Your task to perform on an android device: Open location settings Image 0: 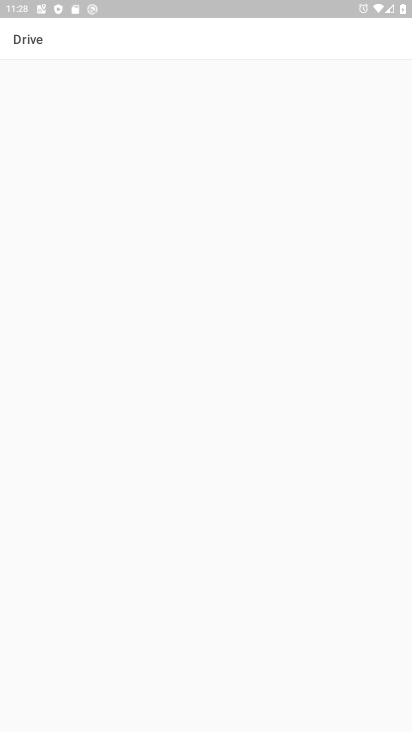
Step 0: press home button
Your task to perform on an android device: Open location settings Image 1: 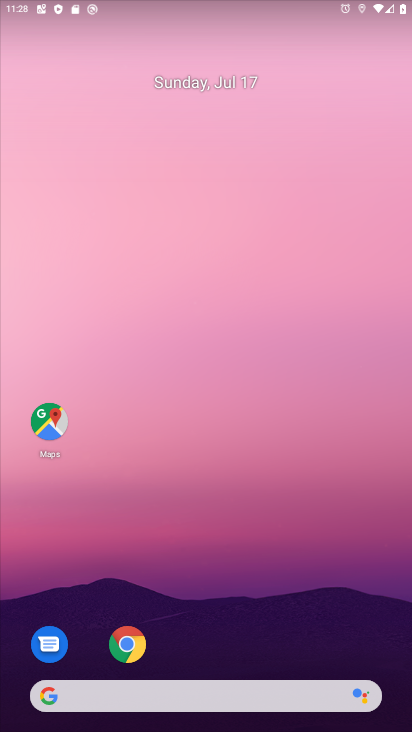
Step 1: drag from (257, 608) to (259, 159)
Your task to perform on an android device: Open location settings Image 2: 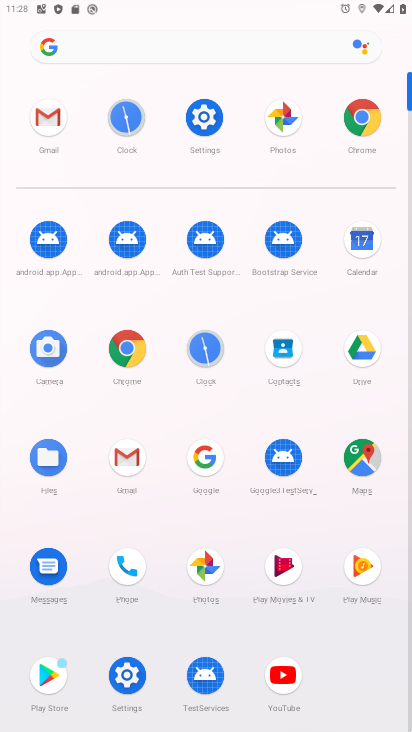
Step 2: click (208, 129)
Your task to perform on an android device: Open location settings Image 3: 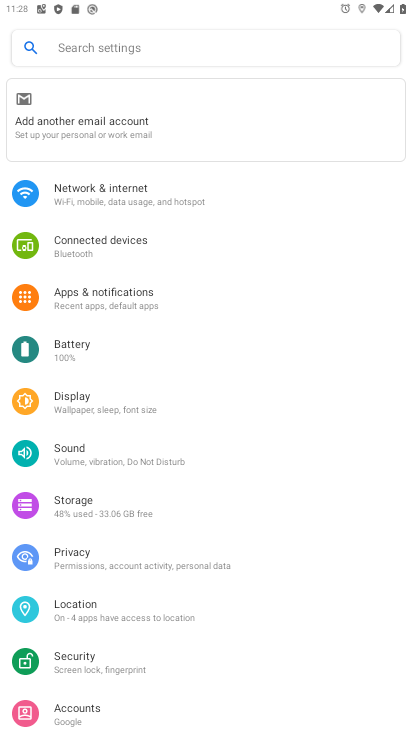
Step 3: drag from (182, 612) to (224, 252)
Your task to perform on an android device: Open location settings Image 4: 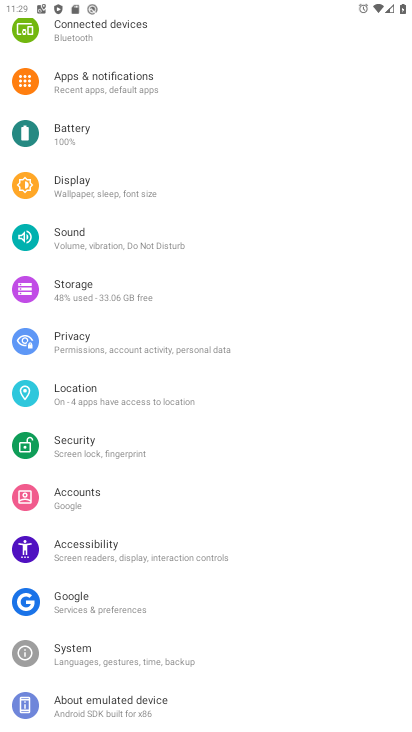
Step 4: click (111, 401)
Your task to perform on an android device: Open location settings Image 5: 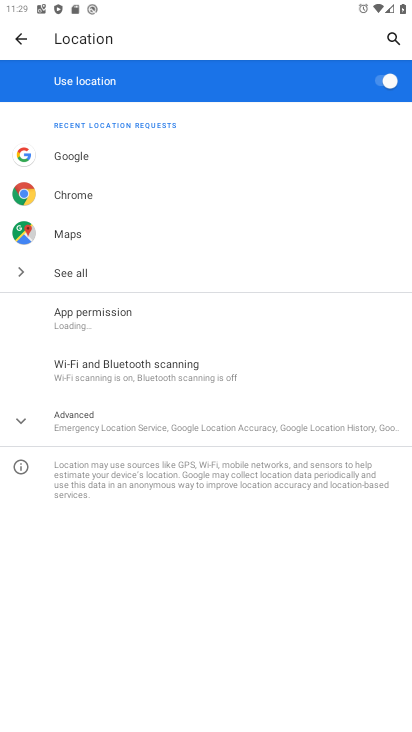
Step 5: task complete